Your task to perform on an android device: Go to location settings Image 0: 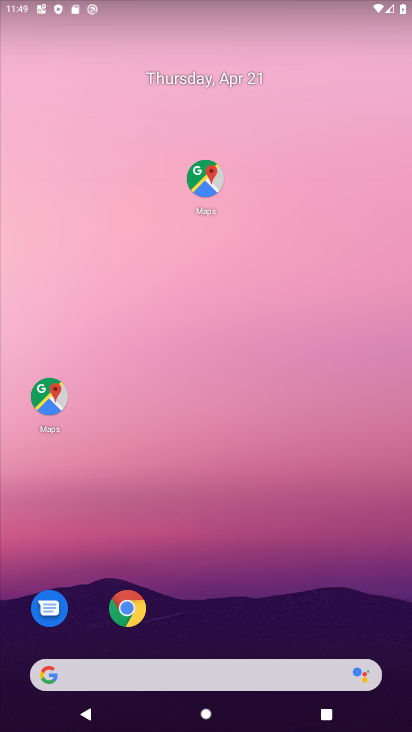
Step 0: drag from (283, 274) to (280, 130)
Your task to perform on an android device: Go to location settings Image 1: 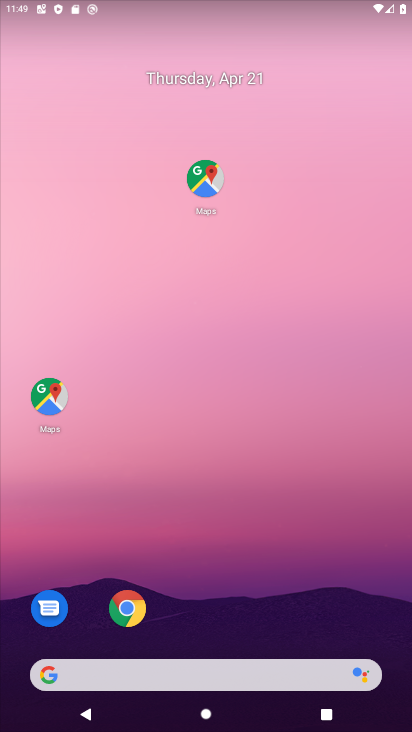
Step 1: drag from (244, 305) to (177, 63)
Your task to perform on an android device: Go to location settings Image 2: 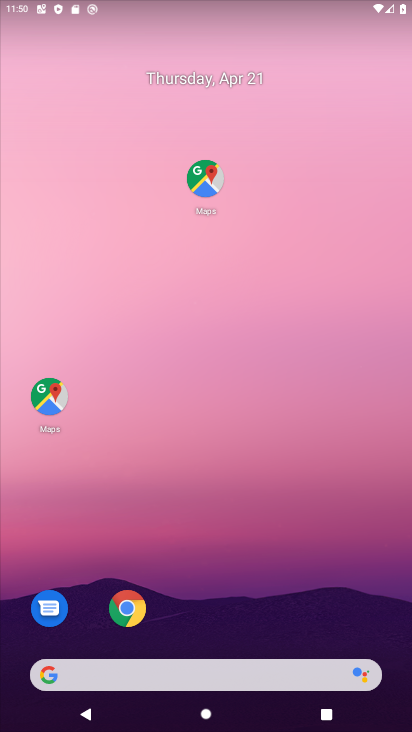
Step 2: drag from (240, 572) to (122, 51)
Your task to perform on an android device: Go to location settings Image 3: 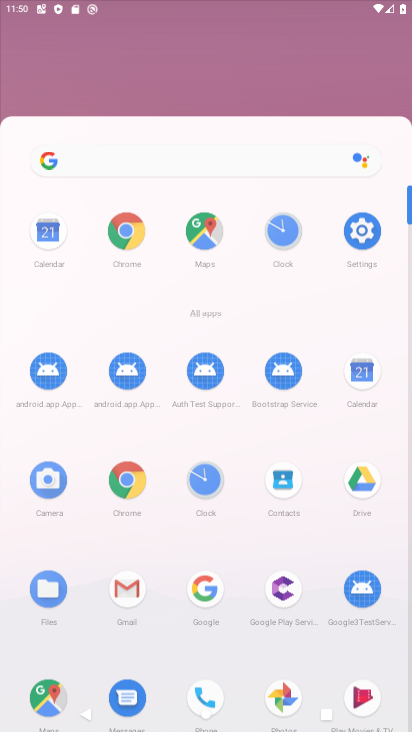
Step 3: drag from (258, 461) to (176, 14)
Your task to perform on an android device: Go to location settings Image 4: 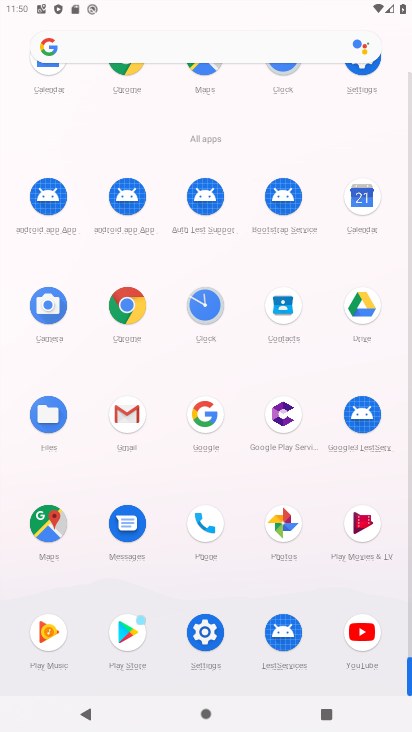
Step 4: drag from (252, 360) to (205, 637)
Your task to perform on an android device: Go to location settings Image 5: 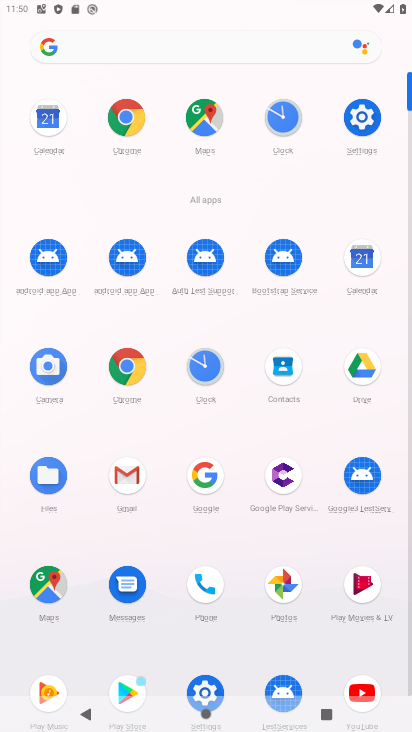
Step 5: click (207, 681)
Your task to perform on an android device: Go to location settings Image 6: 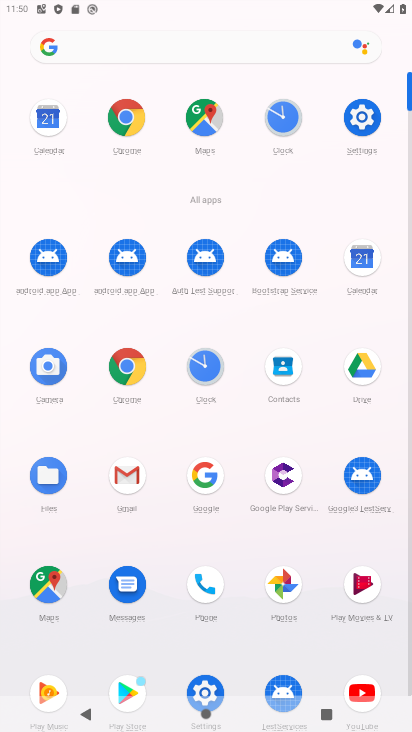
Step 6: click (207, 681)
Your task to perform on an android device: Go to location settings Image 7: 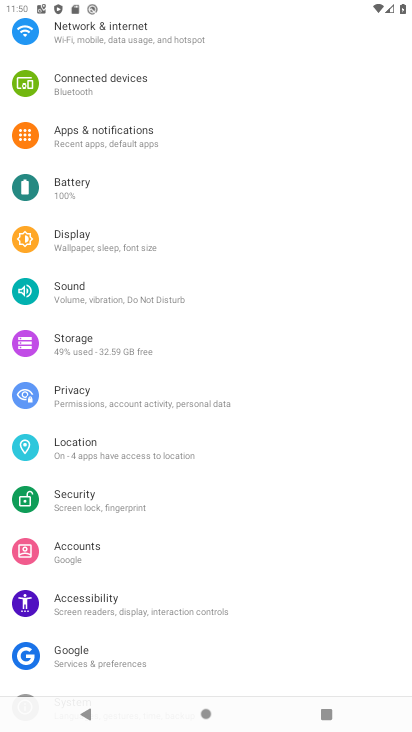
Step 7: click (102, 440)
Your task to perform on an android device: Go to location settings Image 8: 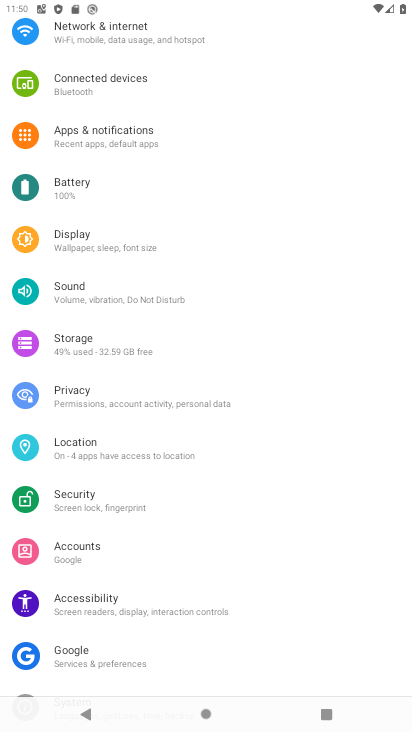
Step 8: click (102, 441)
Your task to perform on an android device: Go to location settings Image 9: 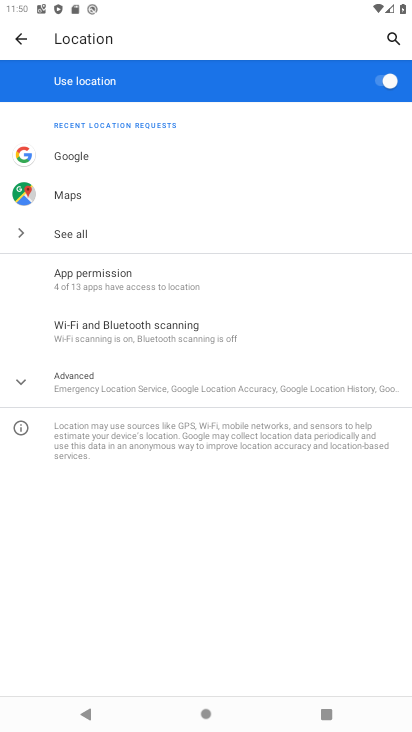
Step 9: click (111, 289)
Your task to perform on an android device: Go to location settings Image 10: 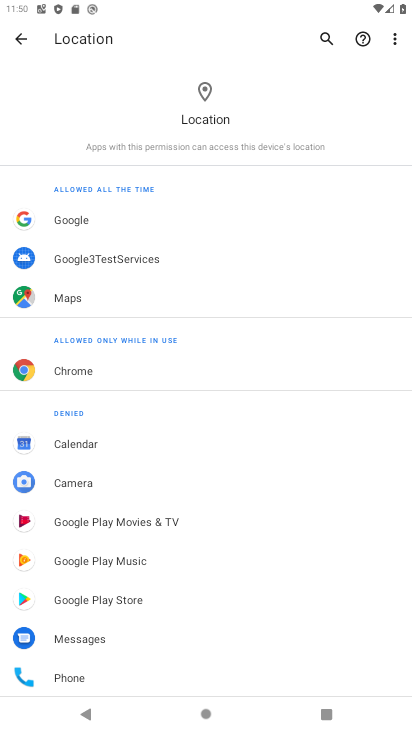
Step 10: click (5, 40)
Your task to perform on an android device: Go to location settings Image 11: 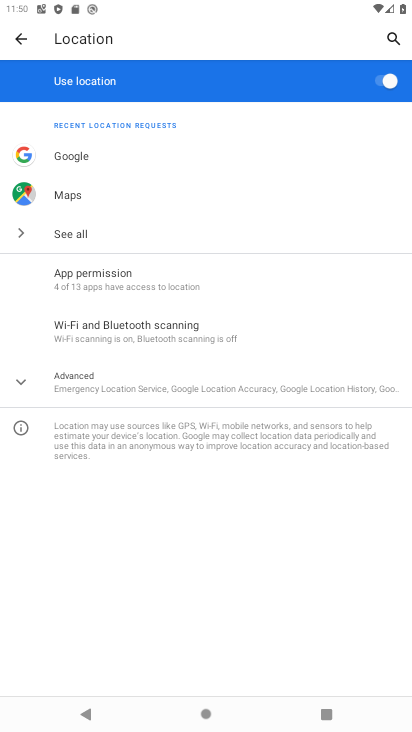
Step 11: click (129, 320)
Your task to perform on an android device: Go to location settings Image 12: 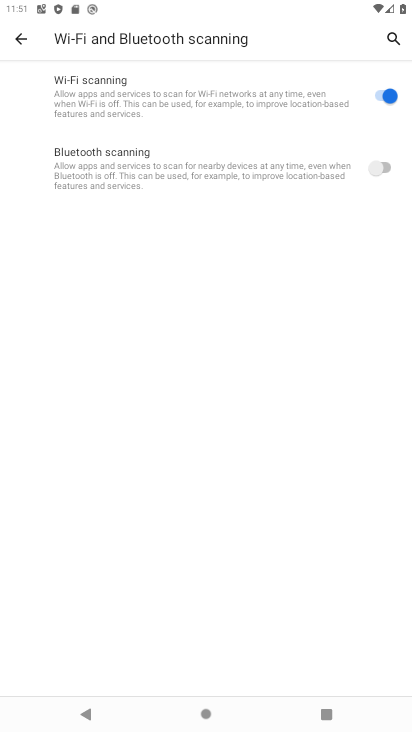
Step 12: click (16, 36)
Your task to perform on an android device: Go to location settings Image 13: 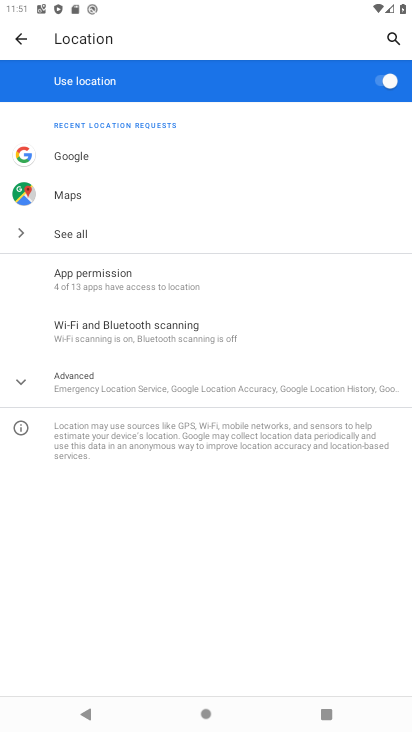
Step 13: click (398, 83)
Your task to perform on an android device: Go to location settings Image 14: 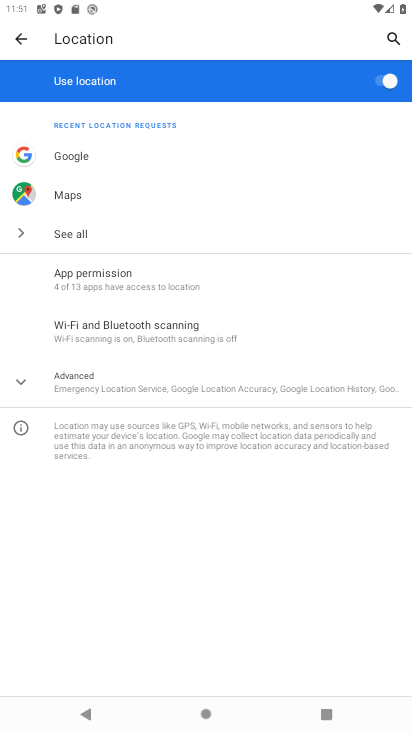
Step 14: click (398, 83)
Your task to perform on an android device: Go to location settings Image 15: 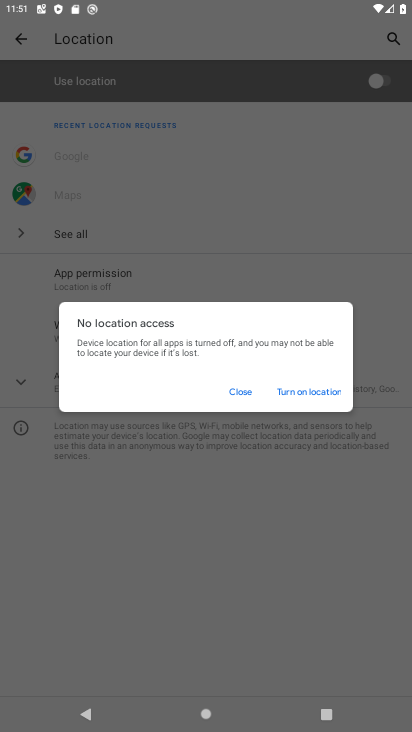
Step 15: task complete